Your task to perform on an android device: add a label to a message in the gmail app Image 0: 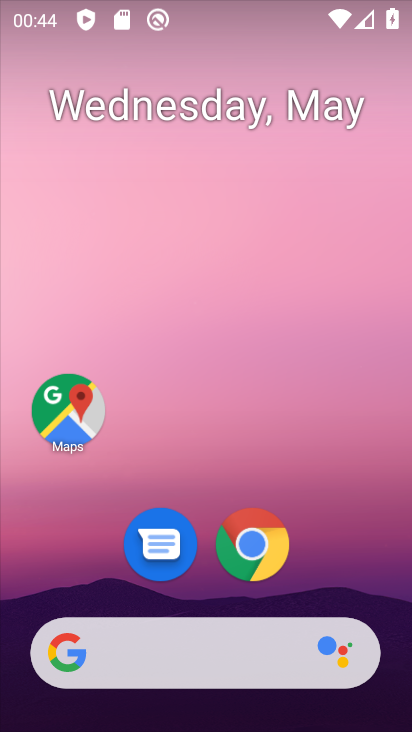
Step 0: drag from (321, 538) to (262, 164)
Your task to perform on an android device: add a label to a message in the gmail app Image 1: 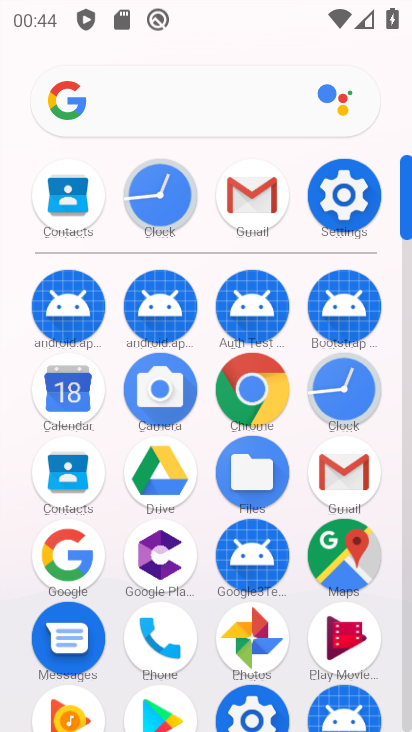
Step 1: click (345, 479)
Your task to perform on an android device: add a label to a message in the gmail app Image 2: 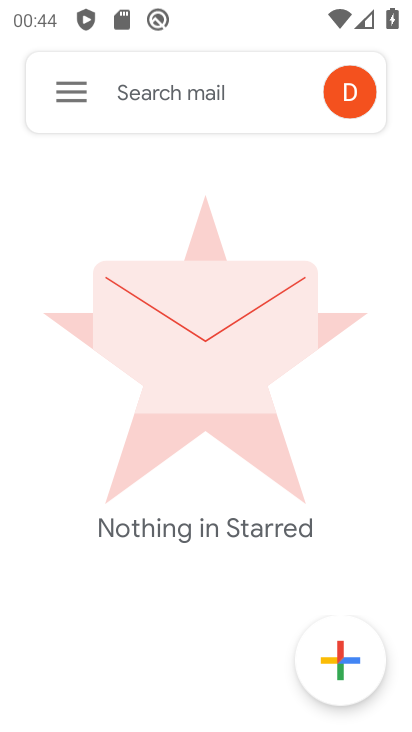
Step 2: click (74, 97)
Your task to perform on an android device: add a label to a message in the gmail app Image 3: 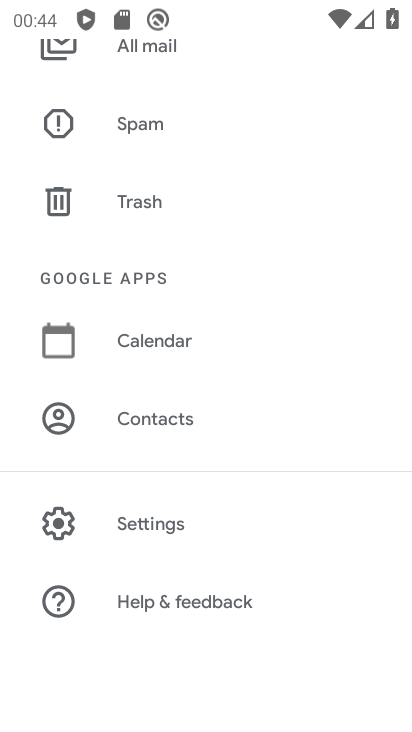
Step 3: click (177, 63)
Your task to perform on an android device: add a label to a message in the gmail app Image 4: 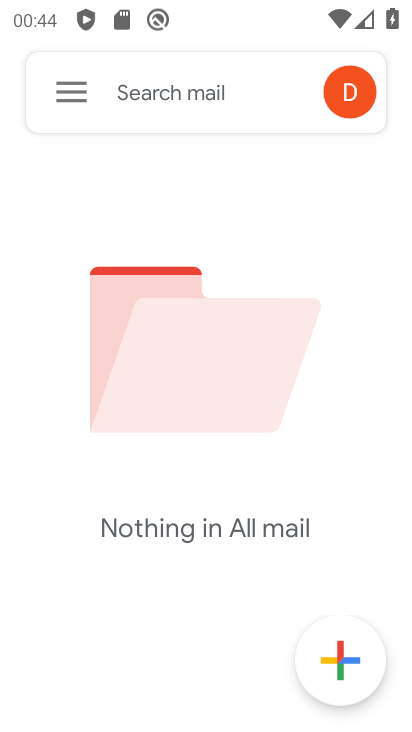
Step 4: task complete